Your task to perform on an android device: set an alarm Image 0: 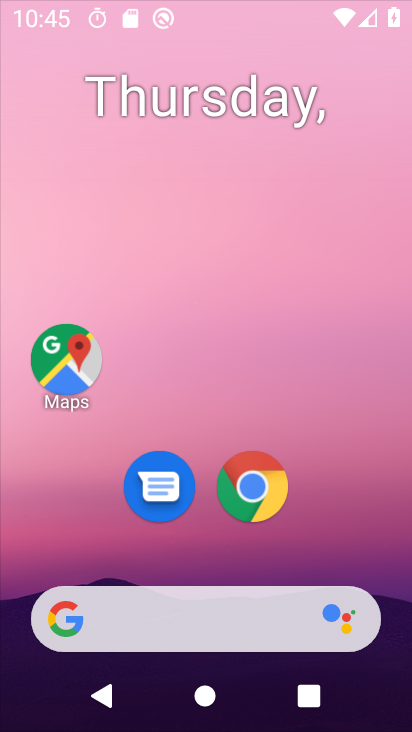
Step 0: click (397, 185)
Your task to perform on an android device: set an alarm Image 1: 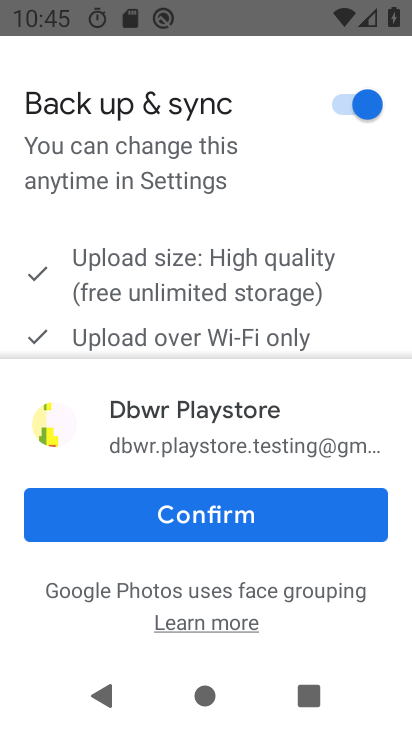
Step 1: press home button
Your task to perform on an android device: set an alarm Image 2: 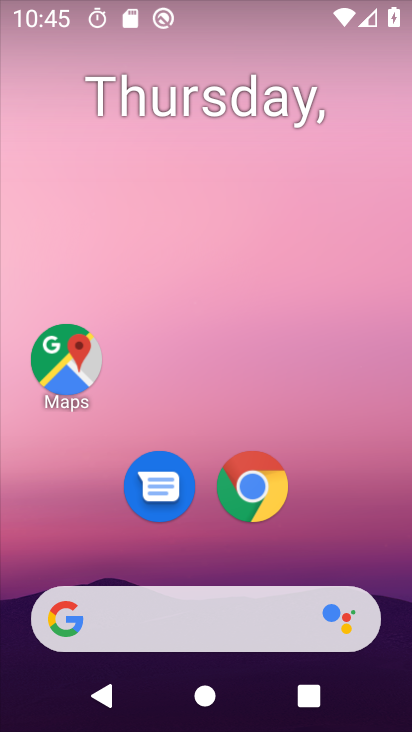
Step 2: drag from (393, 578) to (357, 235)
Your task to perform on an android device: set an alarm Image 3: 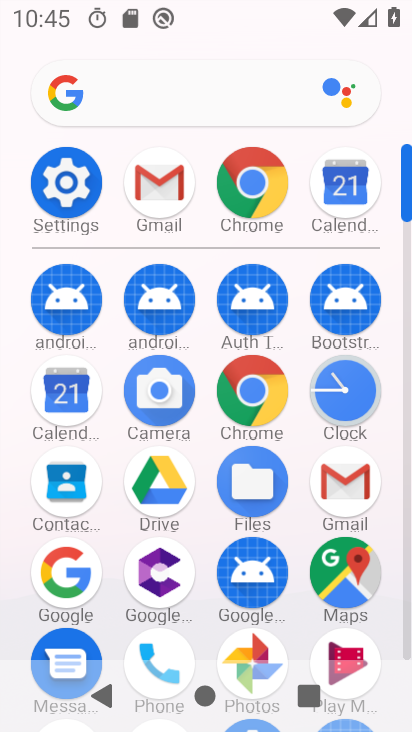
Step 3: click (61, 188)
Your task to perform on an android device: set an alarm Image 4: 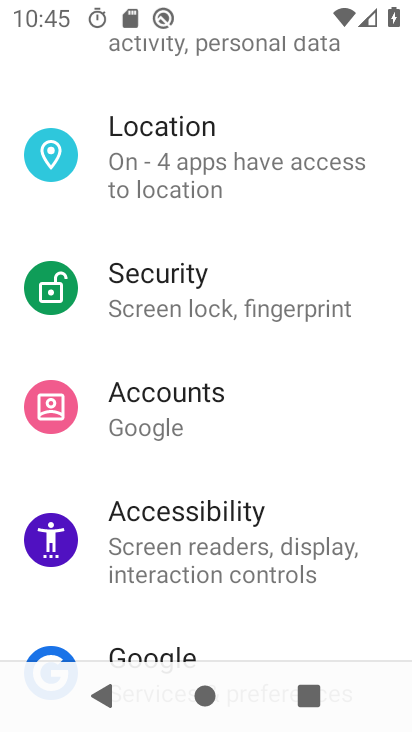
Step 4: press back button
Your task to perform on an android device: set an alarm Image 5: 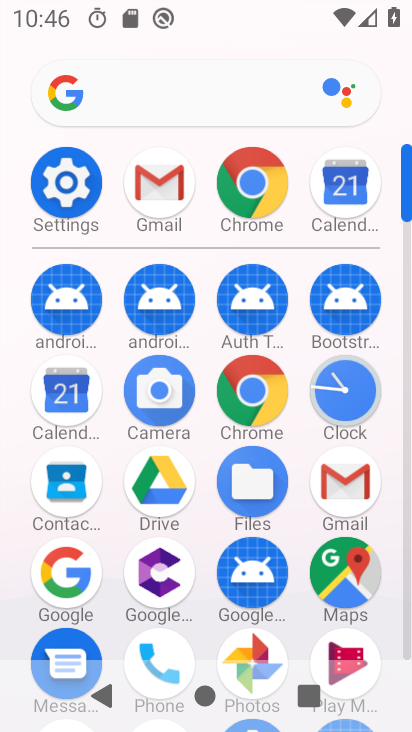
Step 5: click (349, 396)
Your task to perform on an android device: set an alarm Image 6: 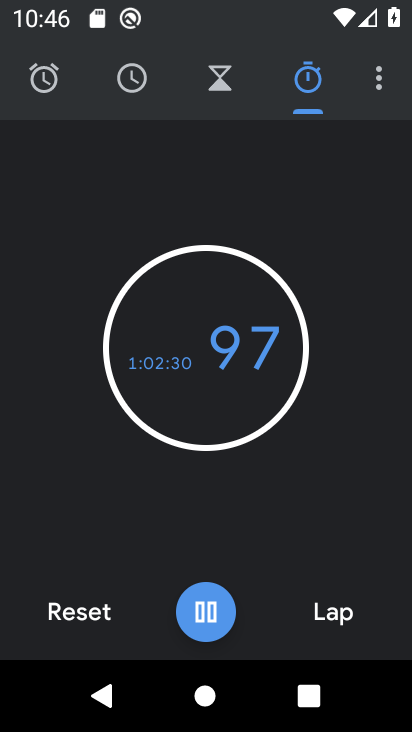
Step 6: click (44, 83)
Your task to perform on an android device: set an alarm Image 7: 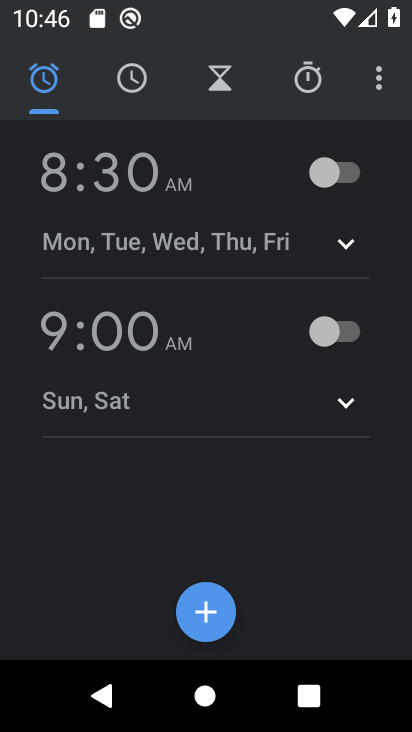
Step 7: click (352, 164)
Your task to perform on an android device: set an alarm Image 8: 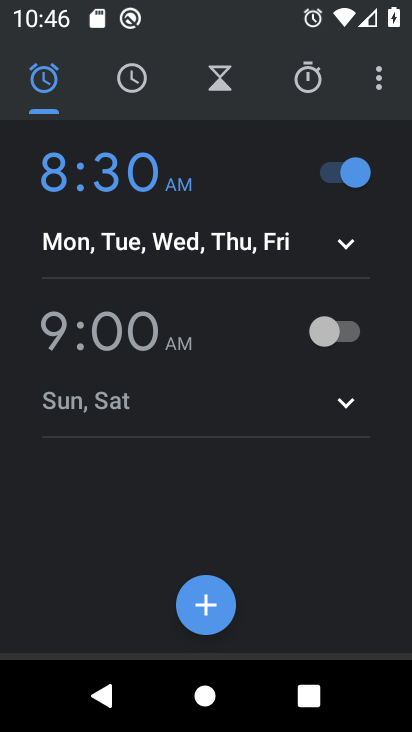
Step 8: task complete